Your task to perform on an android device: Go to Android settings Image 0: 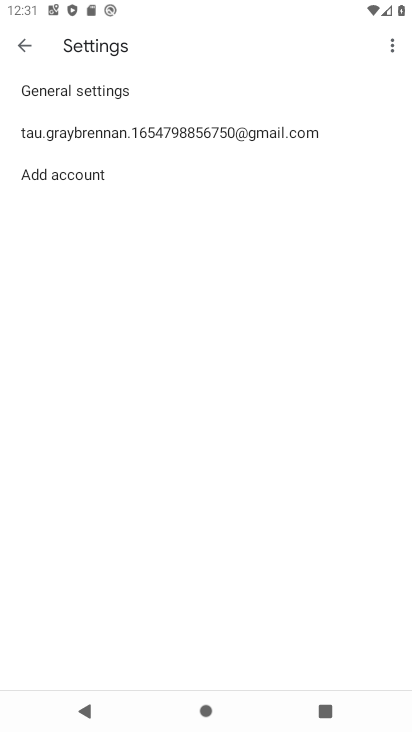
Step 0: press home button
Your task to perform on an android device: Go to Android settings Image 1: 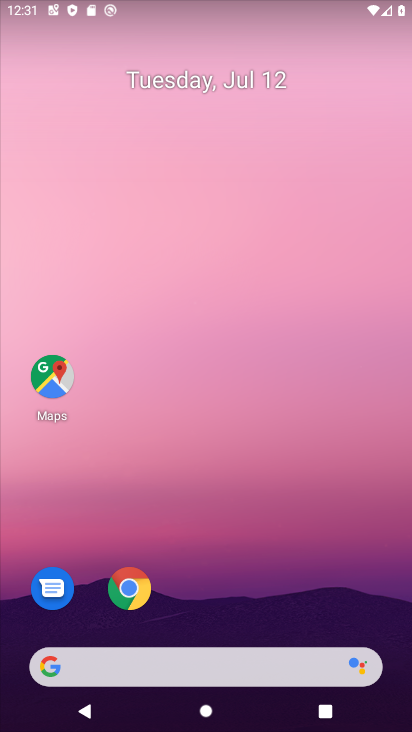
Step 1: drag from (178, 540) to (178, 335)
Your task to perform on an android device: Go to Android settings Image 2: 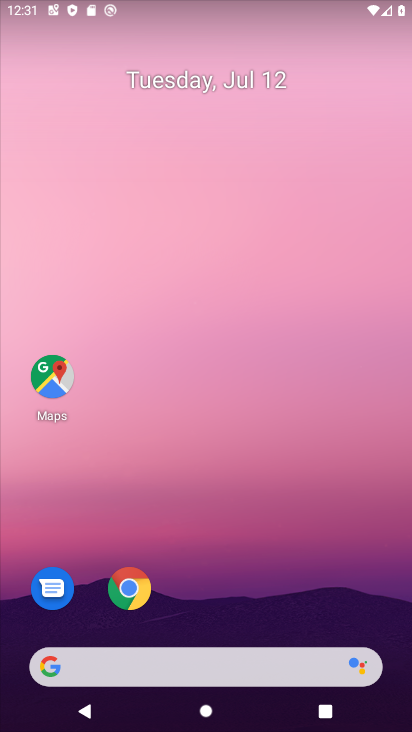
Step 2: drag from (167, 572) to (167, 274)
Your task to perform on an android device: Go to Android settings Image 3: 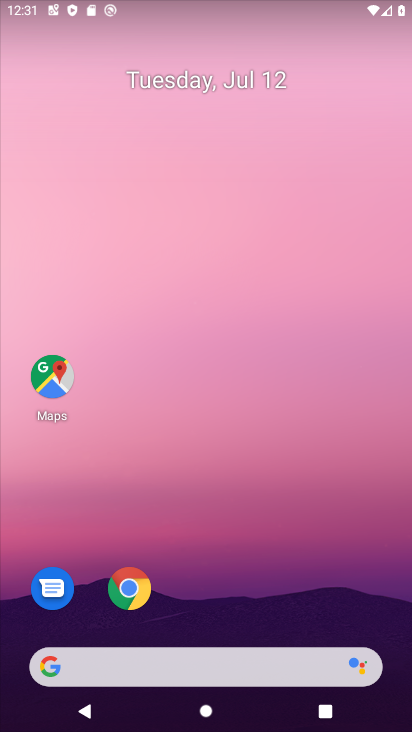
Step 3: drag from (201, 630) to (241, 235)
Your task to perform on an android device: Go to Android settings Image 4: 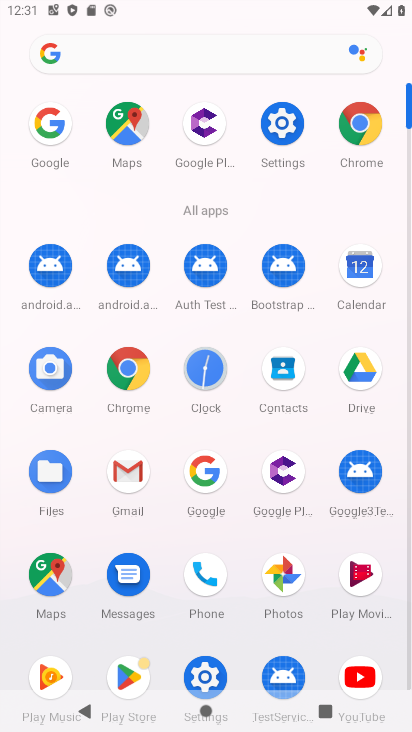
Step 4: click (277, 130)
Your task to perform on an android device: Go to Android settings Image 5: 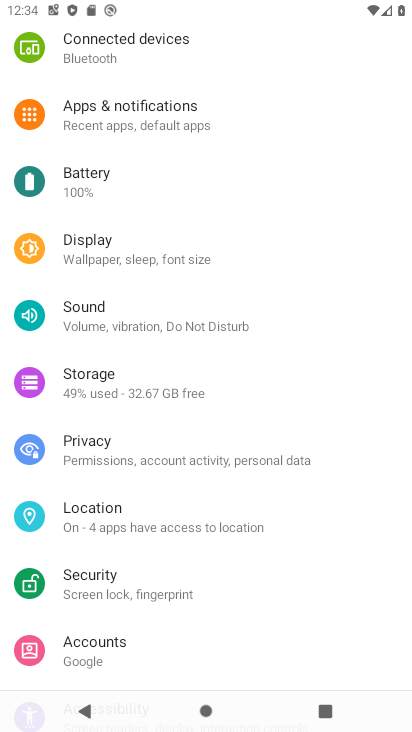
Step 5: task complete